Your task to perform on an android device: Open the Play Movies app and select the watchlist tab. Image 0: 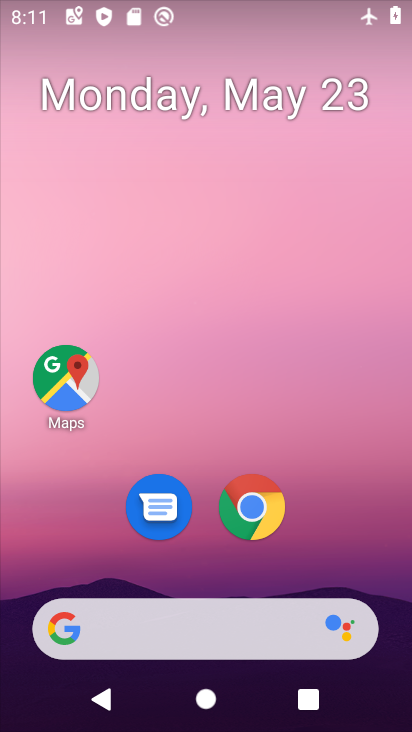
Step 0: drag from (368, 500) to (341, 84)
Your task to perform on an android device: Open the Play Movies app and select the watchlist tab. Image 1: 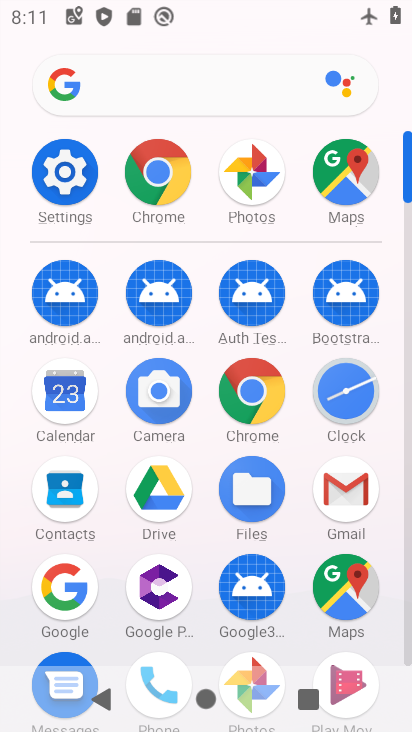
Step 1: click (335, 653)
Your task to perform on an android device: Open the Play Movies app and select the watchlist tab. Image 2: 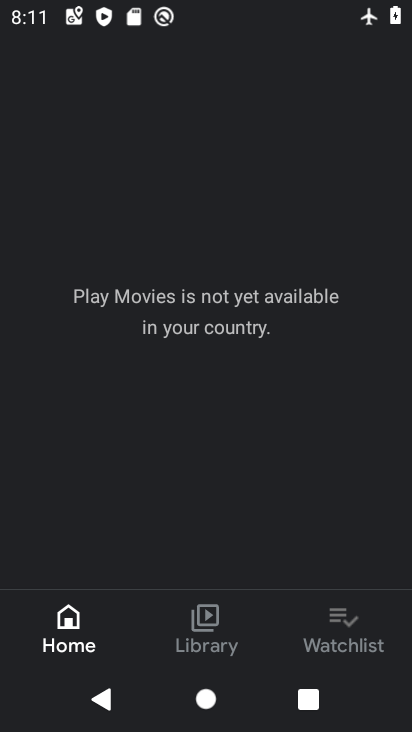
Step 2: click (343, 636)
Your task to perform on an android device: Open the Play Movies app and select the watchlist tab. Image 3: 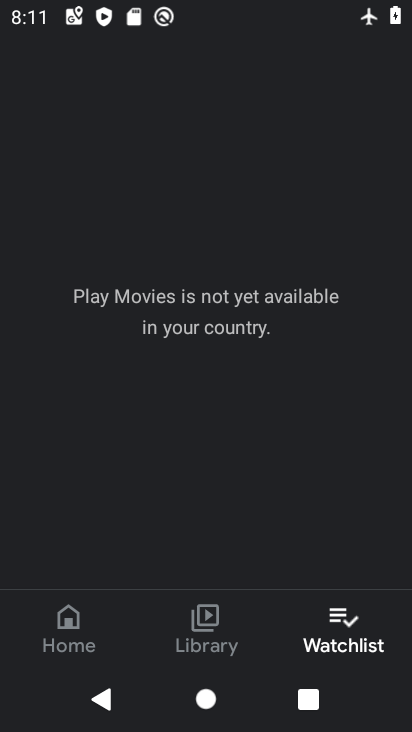
Step 3: task complete